Your task to perform on an android device: toggle show notifications on the lock screen Image 0: 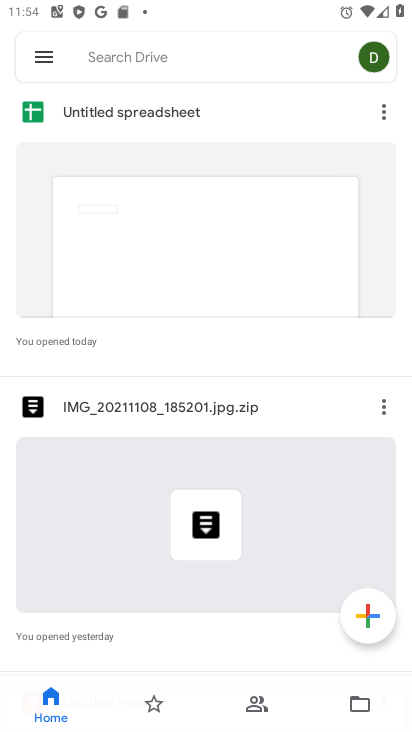
Step 0: press home button
Your task to perform on an android device: toggle show notifications on the lock screen Image 1: 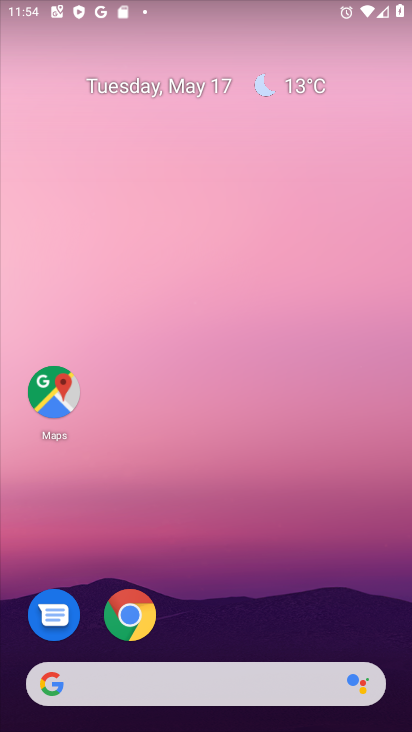
Step 1: drag from (290, 595) to (247, 156)
Your task to perform on an android device: toggle show notifications on the lock screen Image 2: 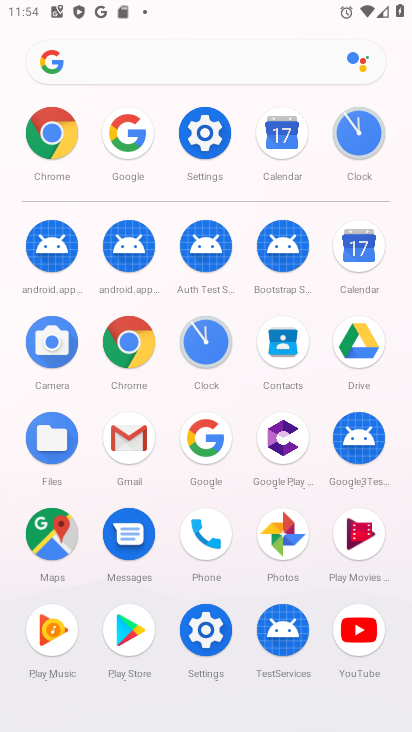
Step 2: click (220, 142)
Your task to perform on an android device: toggle show notifications on the lock screen Image 3: 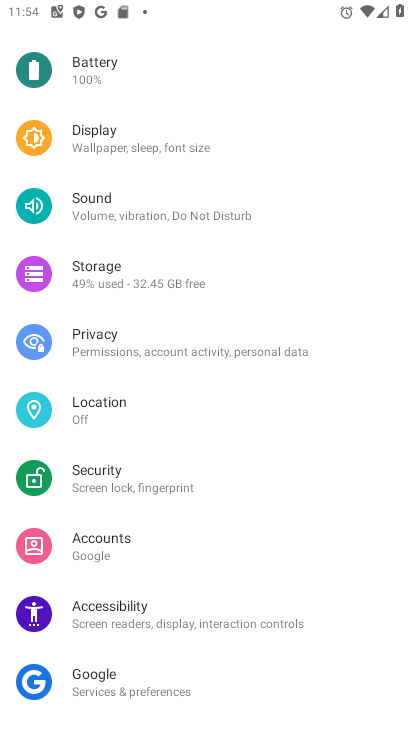
Step 3: drag from (296, 592) to (286, 297)
Your task to perform on an android device: toggle show notifications on the lock screen Image 4: 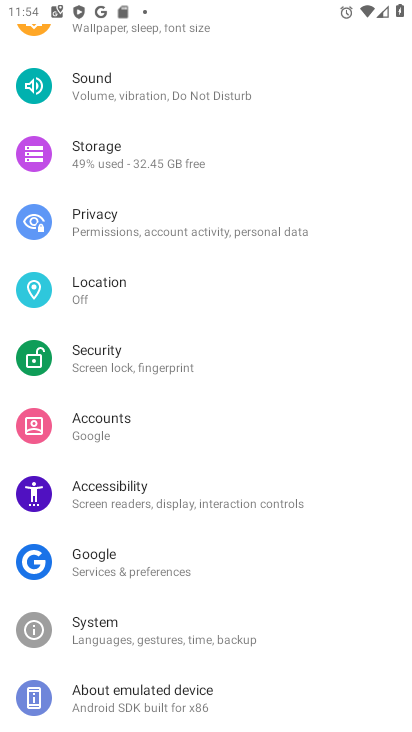
Step 4: drag from (188, 221) to (241, 730)
Your task to perform on an android device: toggle show notifications on the lock screen Image 5: 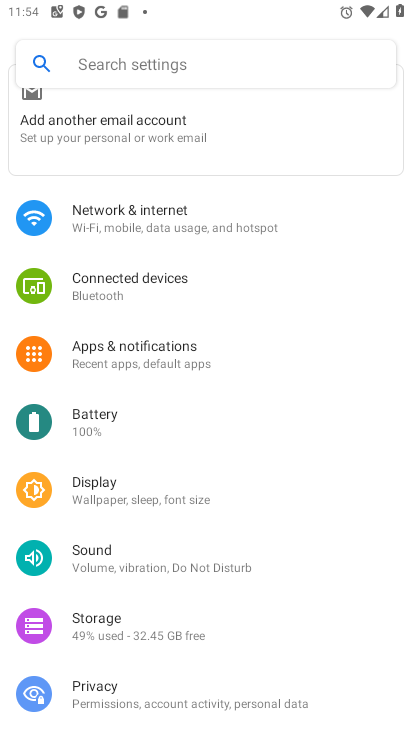
Step 5: click (136, 353)
Your task to perform on an android device: toggle show notifications on the lock screen Image 6: 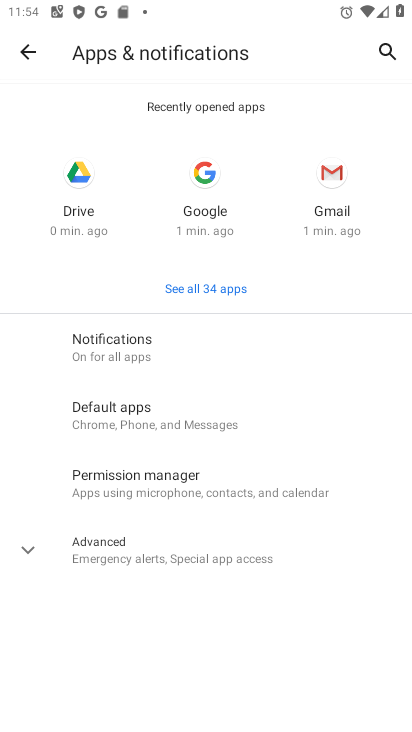
Step 6: click (156, 355)
Your task to perform on an android device: toggle show notifications on the lock screen Image 7: 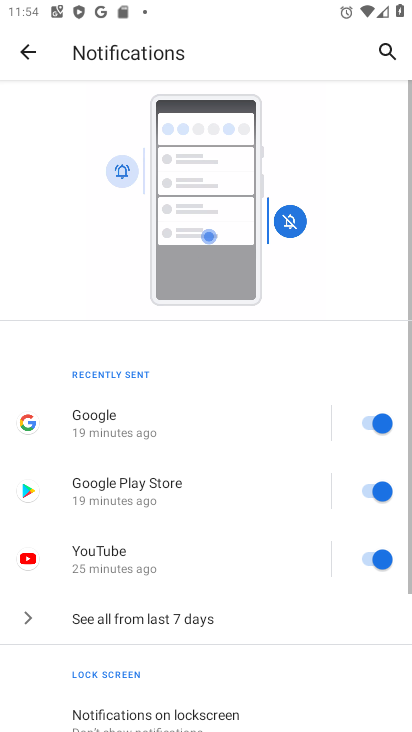
Step 7: drag from (220, 576) to (216, 183)
Your task to perform on an android device: toggle show notifications on the lock screen Image 8: 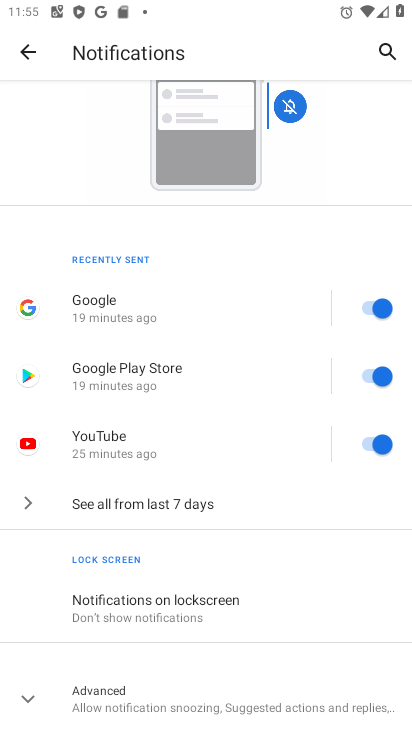
Step 8: drag from (288, 637) to (292, 143)
Your task to perform on an android device: toggle show notifications on the lock screen Image 9: 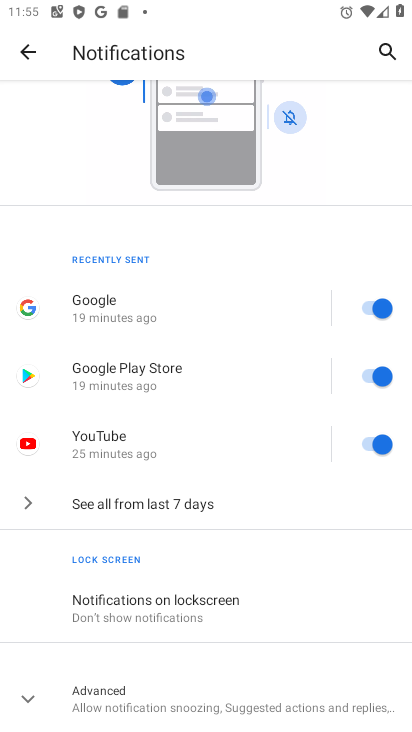
Step 9: drag from (279, 609) to (280, 225)
Your task to perform on an android device: toggle show notifications on the lock screen Image 10: 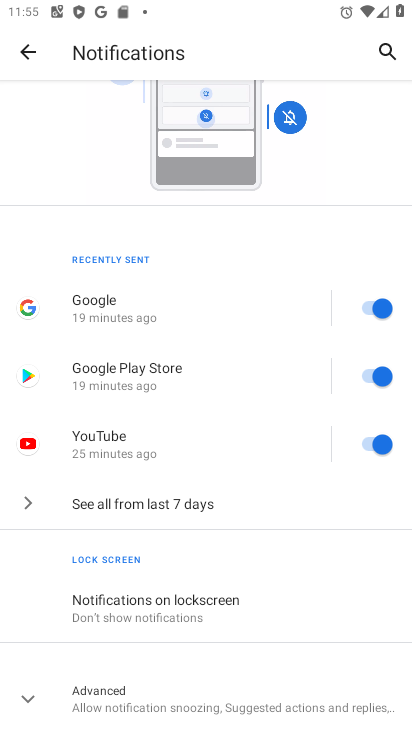
Step 10: click (176, 597)
Your task to perform on an android device: toggle show notifications on the lock screen Image 11: 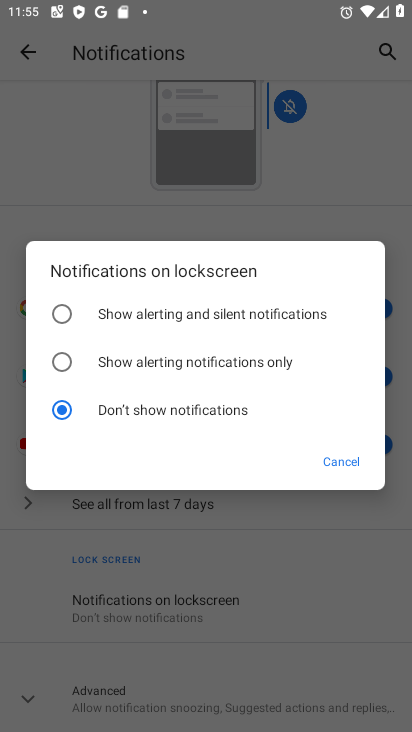
Step 11: click (212, 368)
Your task to perform on an android device: toggle show notifications on the lock screen Image 12: 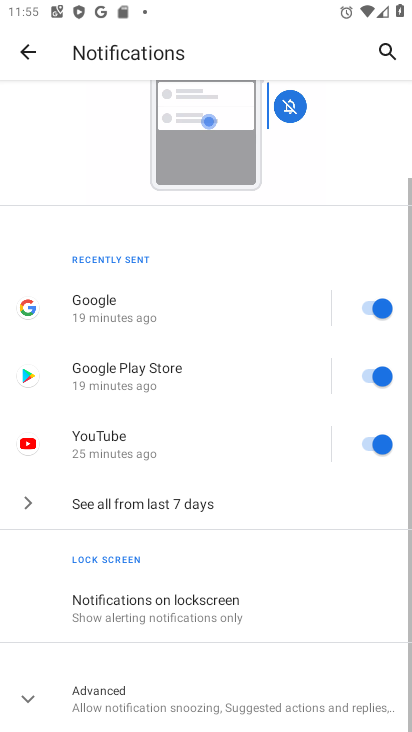
Step 12: task complete